Your task to perform on an android device: stop showing notifications on the lock screen Image 0: 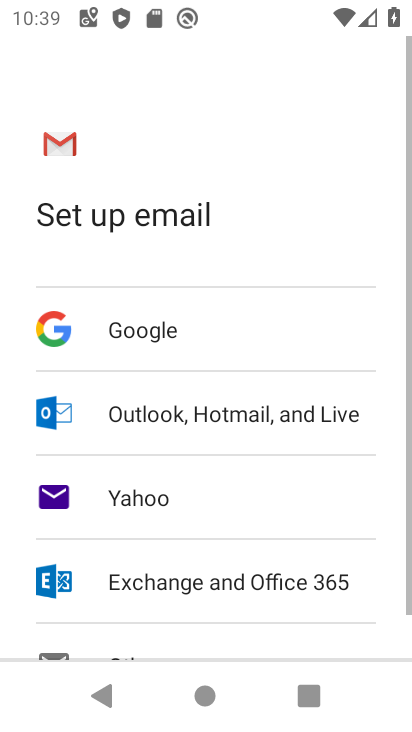
Step 0: press home button
Your task to perform on an android device: stop showing notifications on the lock screen Image 1: 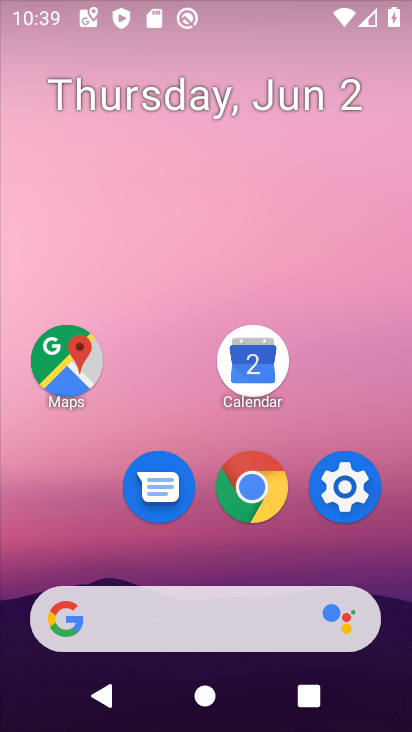
Step 1: drag from (252, 604) to (293, 136)
Your task to perform on an android device: stop showing notifications on the lock screen Image 2: 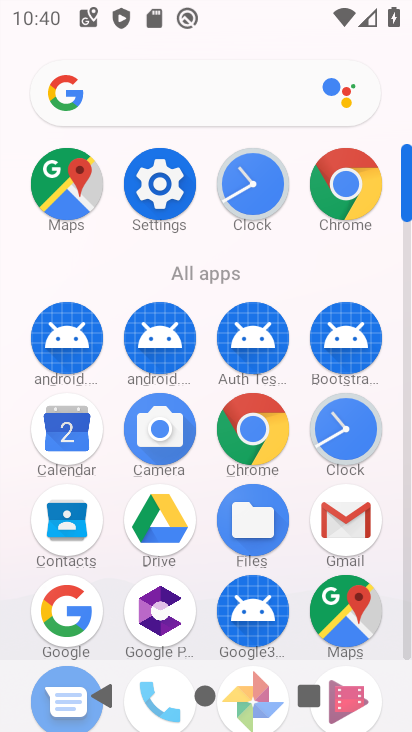
Step 2: click (180, 195)
Your task to perform on an android device: stop showing notifications on the lock screen Image 3: 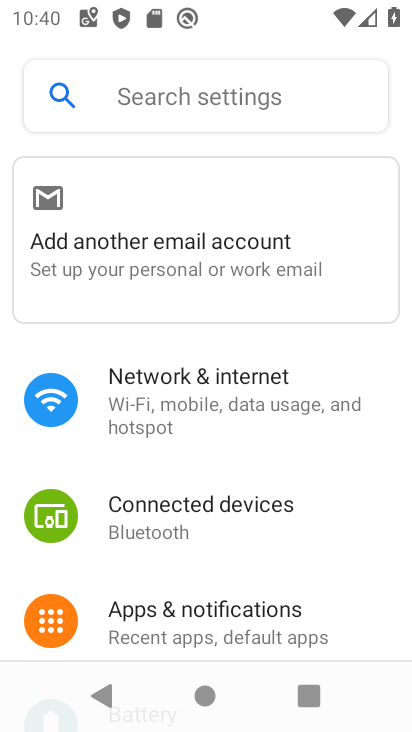
Step 3: click (141, 111)
Your task to perform on an android device: stop showing notifications on the lock screen Image 4: 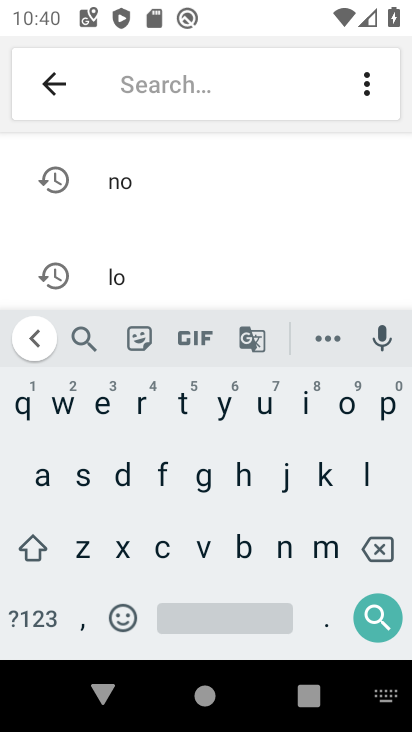
Step 4: click (188, 182)
Your task to perform on an android device: stop showing notifications on the lock screen Image 5: 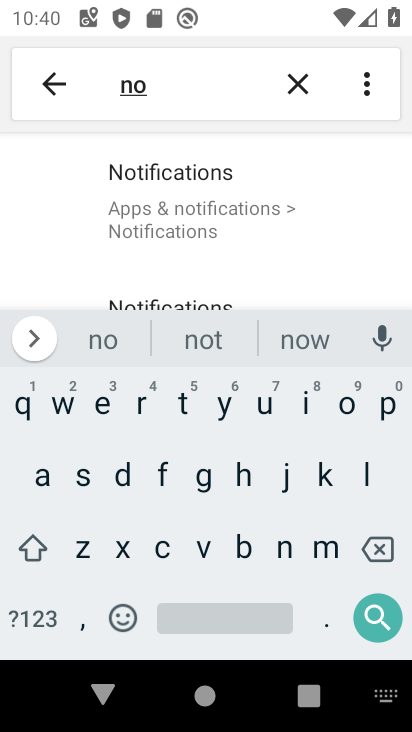
Step 5: click (170, 199)
Your task to perform on an android device: stop showing notifications on the lock screen Image 6: 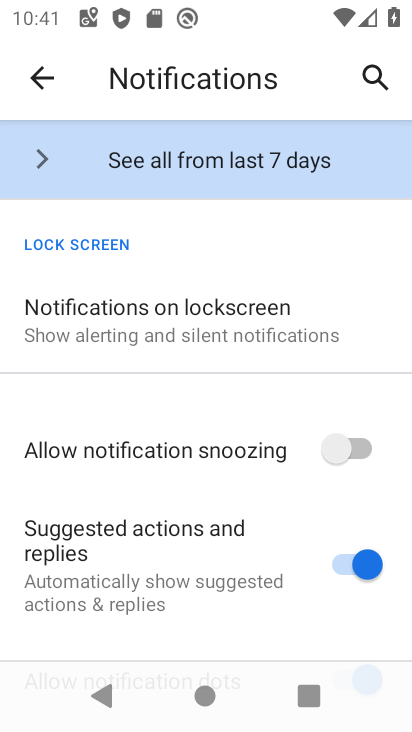
Step 6: click (110, 327)
Your task to perform on an android device: stop showing notifications on the lock screen Image 7: 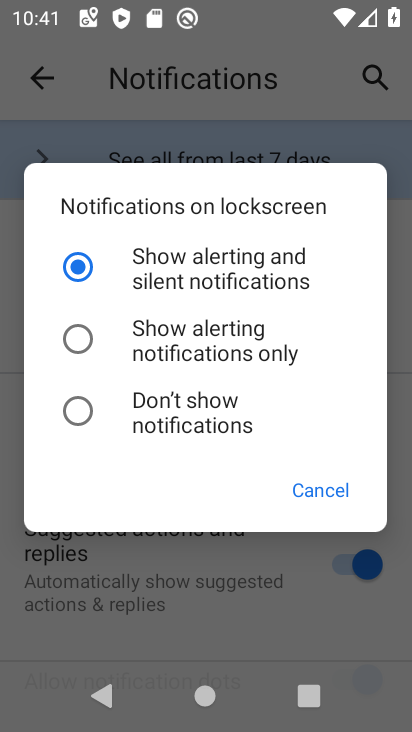
Step 7: click (143, 411)
Your task to perform on an android device: stop showing notifications on the lock screen Image 8: 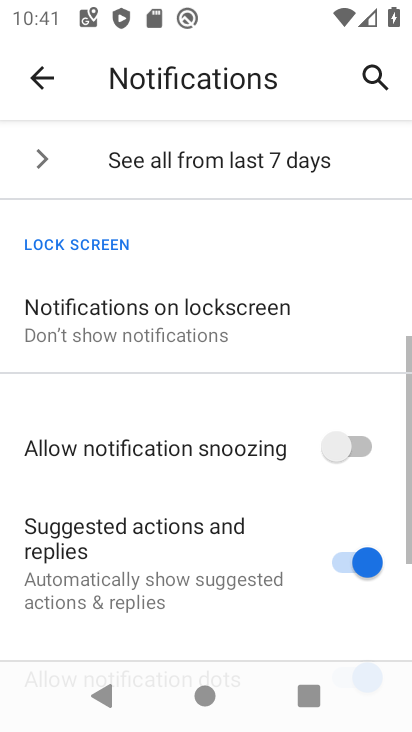
Step 8: task complete